Your task to perform on an android device: empty trash in the gmail app Image 0: 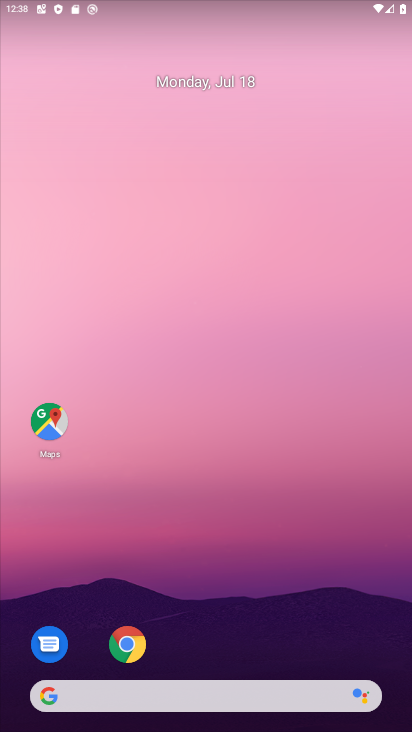
Step 0: drag from (266, 613) to (331, 130)
Your task to perform on an android device: empty trash in the gmail app Image 1: 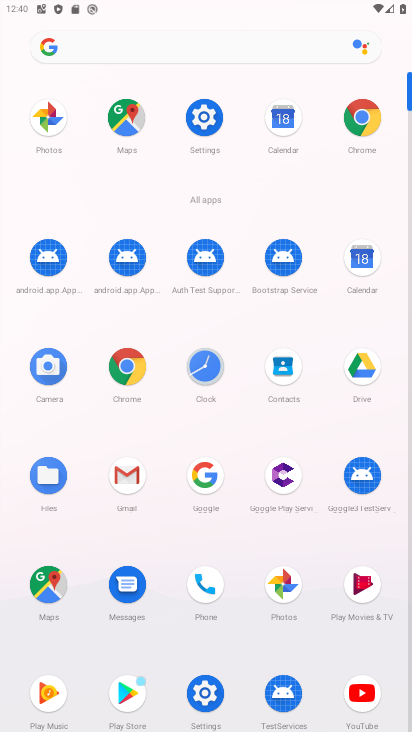
Step 1: click (270, 576)
Your task to perform on an android device: empty trash in the gmail app Image 2: 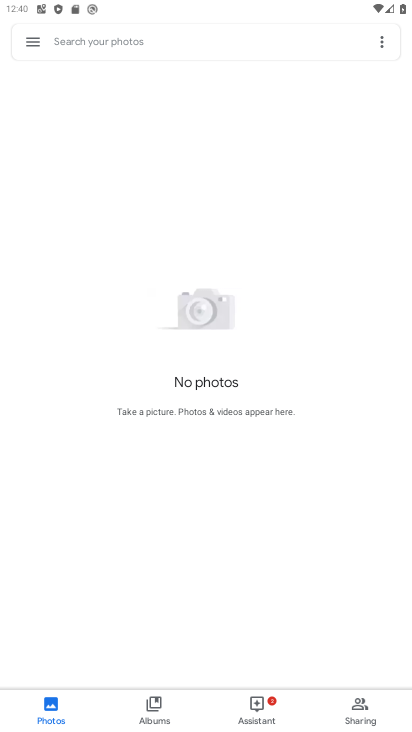
Step 2: click (39, 42)
Your task to perform on an android device: empty trash in the gmail app Image 3: 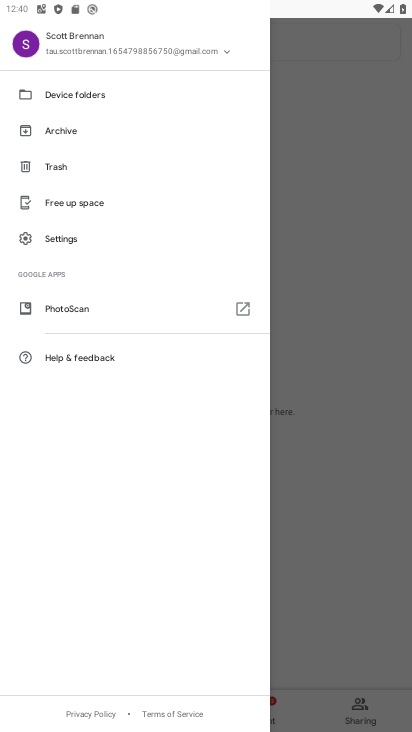
Step 3: click (57, 172)
Your task to perform on an android device: empty trash in the gmail app Image 4: 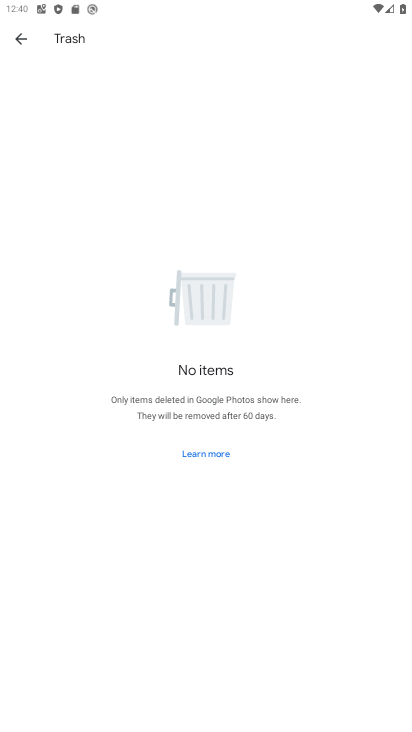
Step 4: task complete